Your task to perform on an android device: delete the emails in spam in the gmail app Image 0: 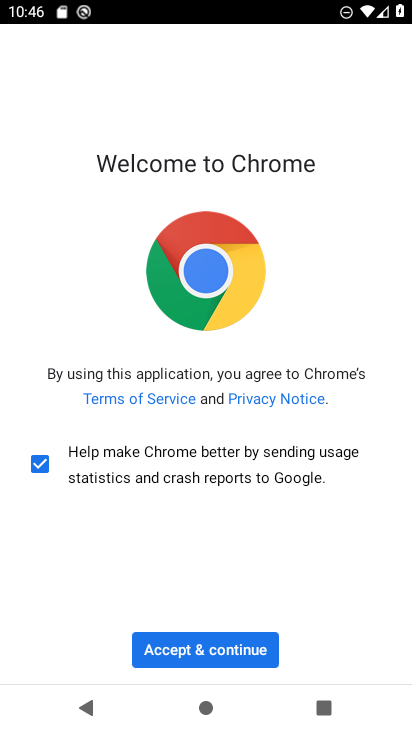
Step 0: press home button
Your task to perform on an android device: delete the emails in spam in the gmail app Image 1: 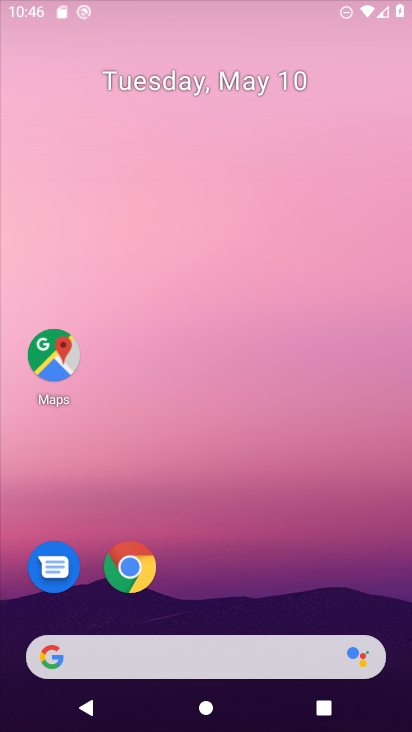
Step 1: drag from (312, 521) to (329, 101)
Your task to perform on an android device: delete the emails in spam in the gmail app Image 2: 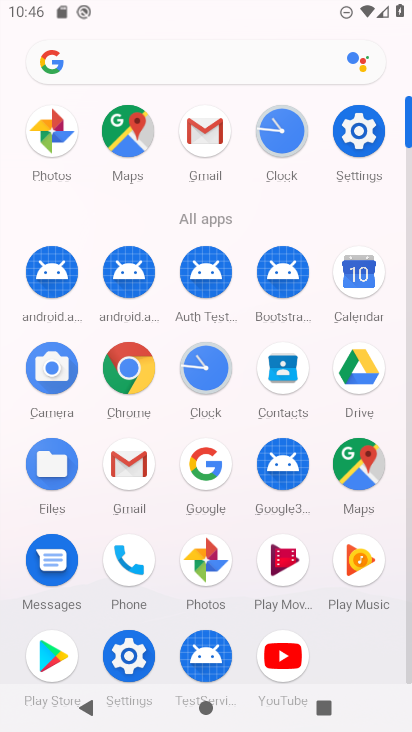
Step 2: click (136, 478)
Your task to perform on an android device: delete the emails in spam in the gmail app Image 3: 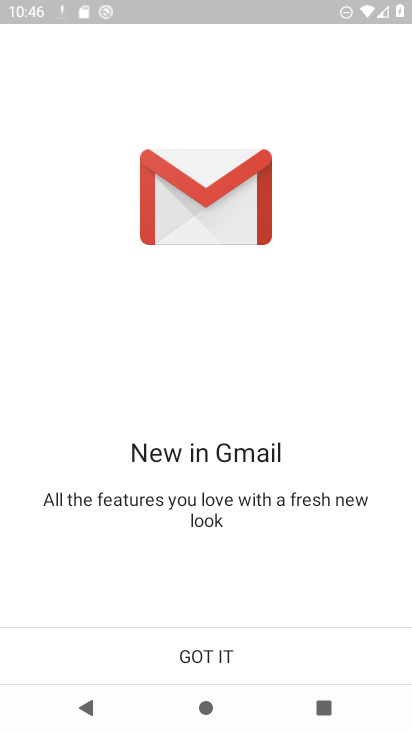
Step 3: click (211, 646)
Your task to perform on an android device: delete the emails in spam in the gmail app Image 4: 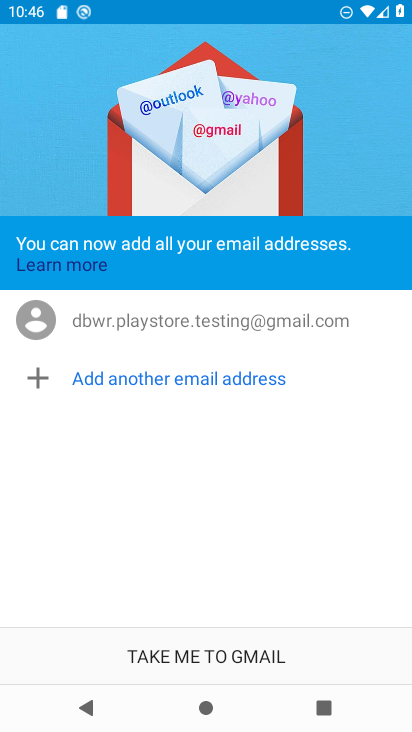
Step 4: click (268, 659)
Your task to perform on an android device: delete the emails in spam in the gmail app Image 5: 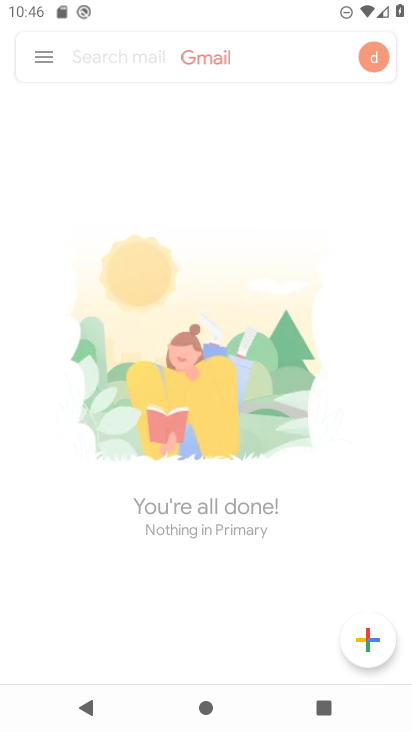
Step 5: click (37, 59)
Your task to perform on an android device: delete the emails in spam in the gmail app Image 6: 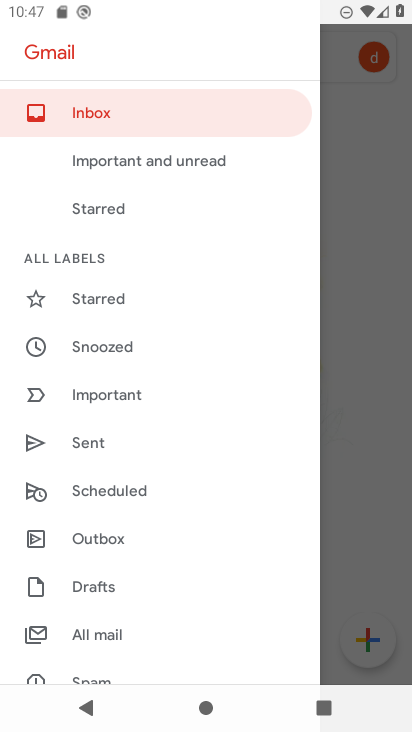
Step 6: drag from (138, 650) to (176, 457)
Your task to perform on an android device: delete the emails in spam in the gmail app Image 7: 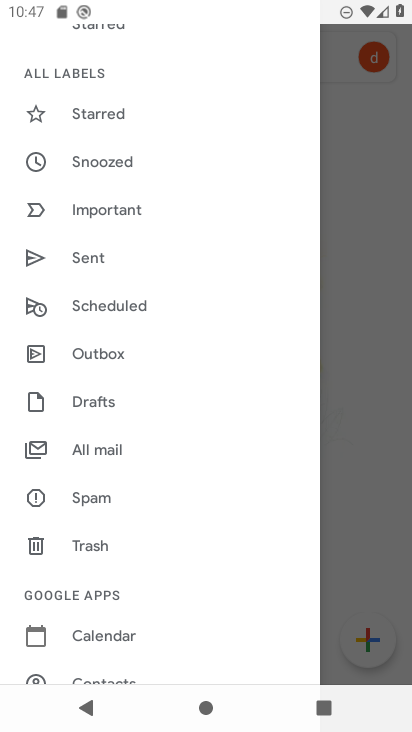
Step 7: click (85, 503)
Your task to perform on an android device: delete the emails in spam in the gmail app Image 8: 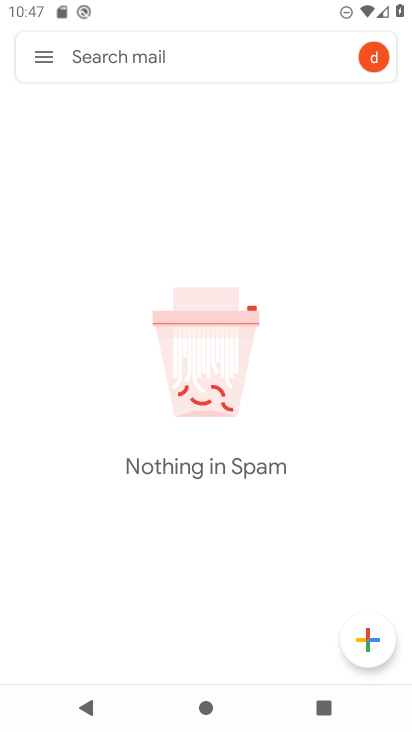
Step 8: task complete